Your task to perform on an android device: Open maps Image 0: 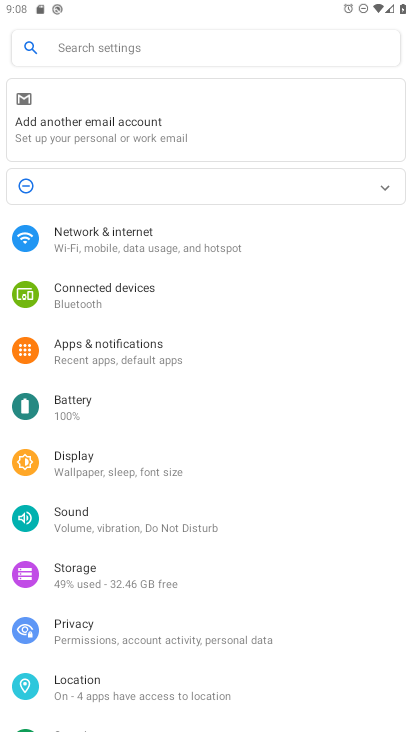
Step 0: press home button
Your task to perform on an android device: Open maps Image 1: 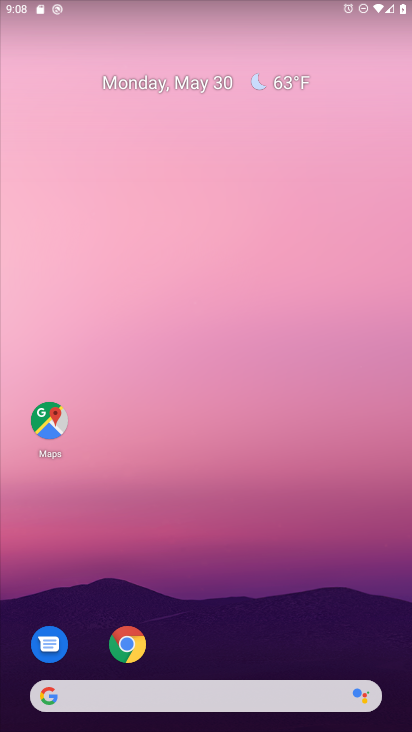
Step 1: click (49, 423)
Your task to perform on an android device: Open maps Image 2: 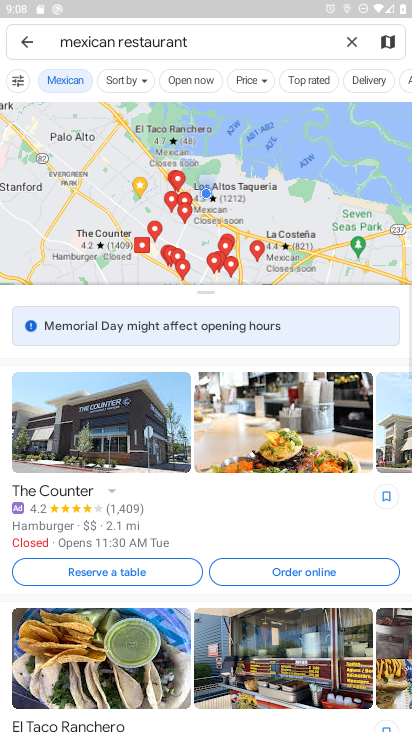
Step 2: task complete